Your task to perform on an android device: toggle translation in the chrome app Image 0: 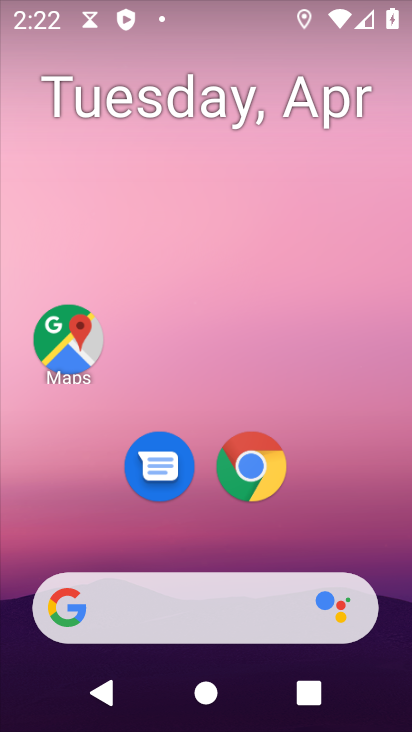
Step 0: drag from (346, 522) to (376, 0)
Your task to perform on an android device: toggle translation in the chrome app Image 1: 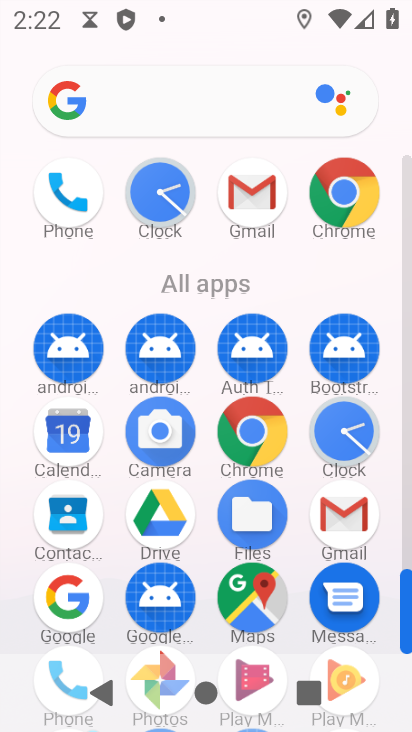
Step 1: drag from (5, 518) to (16, 282)
Your task to perform on an android device: toggle translation in the chrome app Image 2: 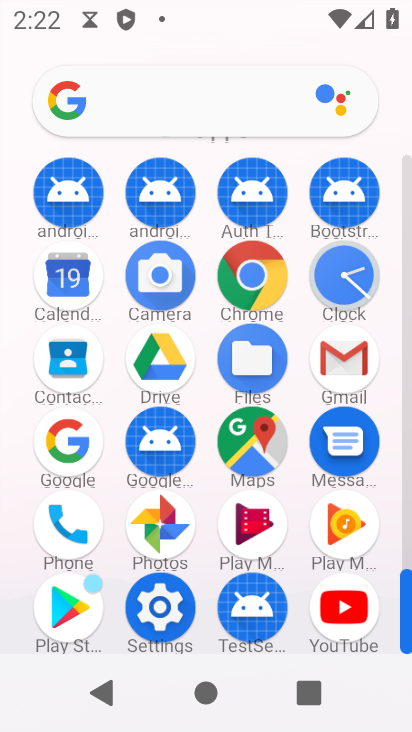
Step 2: click (246, 274)
Your task to perform on an android device: toggle translation in the chrome app Image 3: 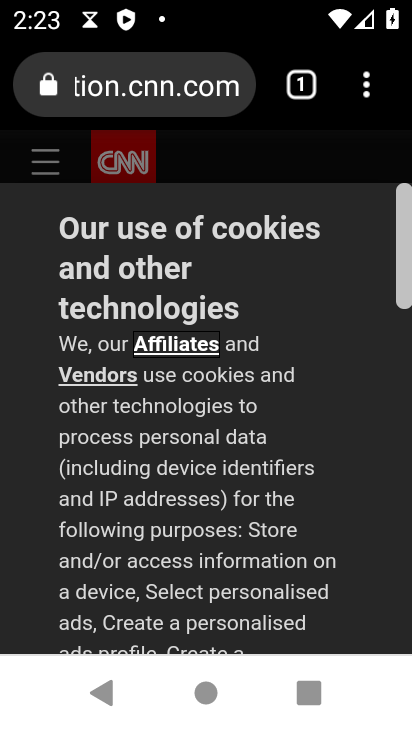
Step 3: drag from (369, 85) to (194, 521)
Your task to perform on an android device: toggle translation in the chrome app Image 4: 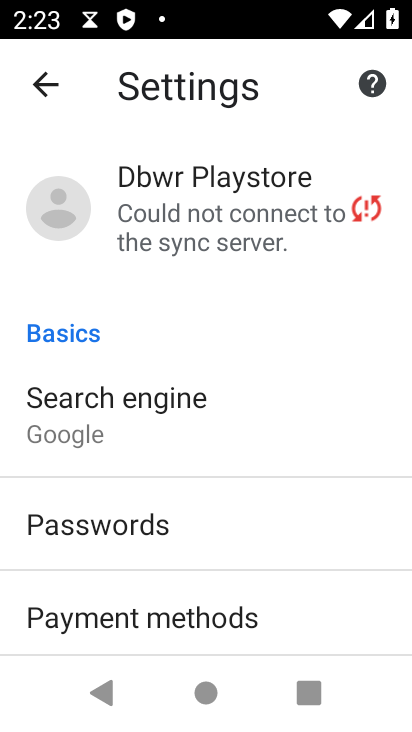
Step 4: drag from (258, 564) to (246, 293)
Your task to perform on an android device: toggle translation in the chrome app Image 5: 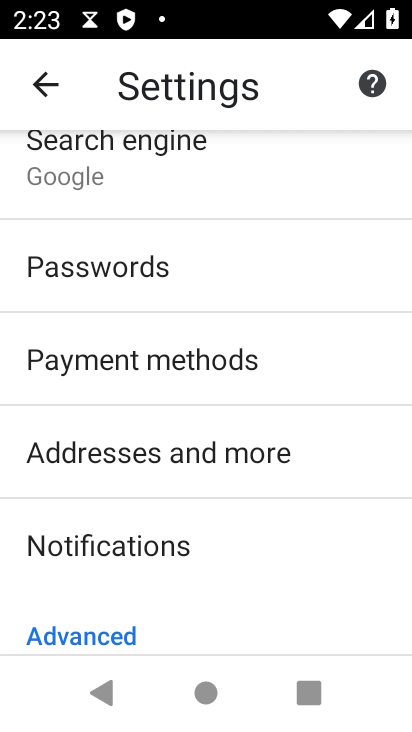
Step 5: drag from (190, 571) to (216, 200)
Your task to perform on an android device: toggle translation in the chrome app Image 6: 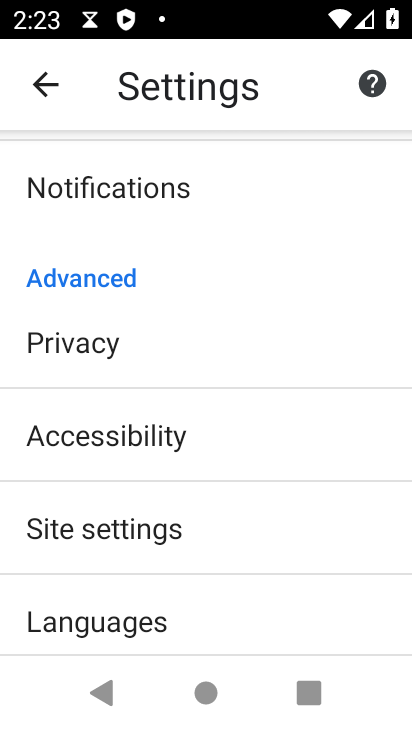
Step 6: click (160, 624)
Your task to perform on an android device: toggle translation in the chrome app Image 7: 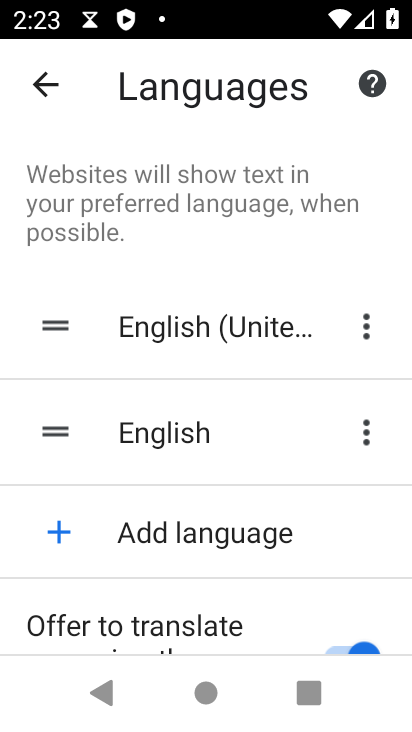
Step 7: drag from (269, 534) to (278, 250)
Your task to perform on an android device: toggle translation in the chrome app Image 8: 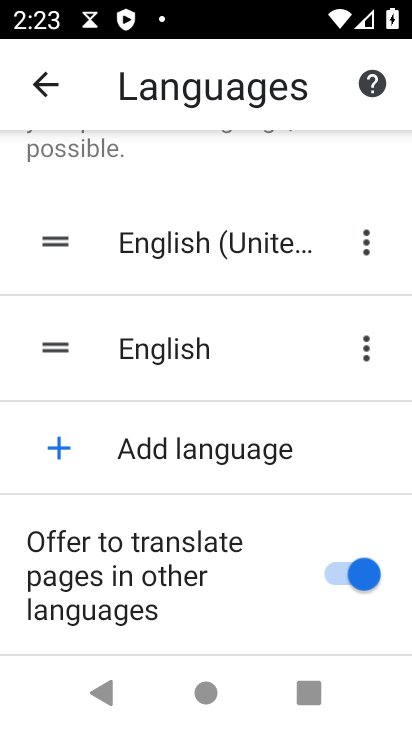
Step 8: click (325, 576)
Your task to perform on an android device: toggle translation in the chrome app Image 9: 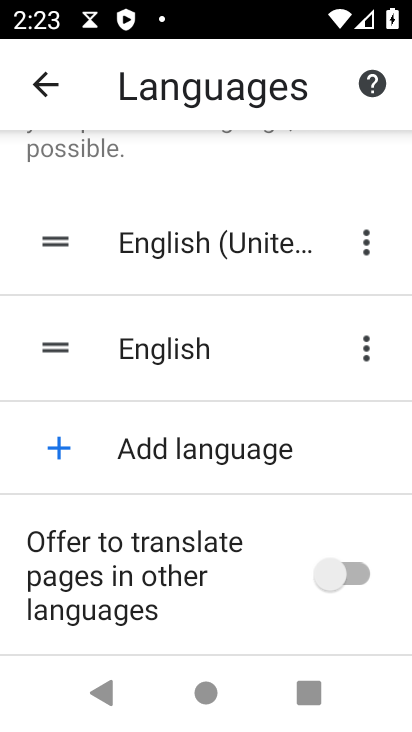
Step 9: task complete